Your task to perform on an android device: change keyboard looks Image 0: 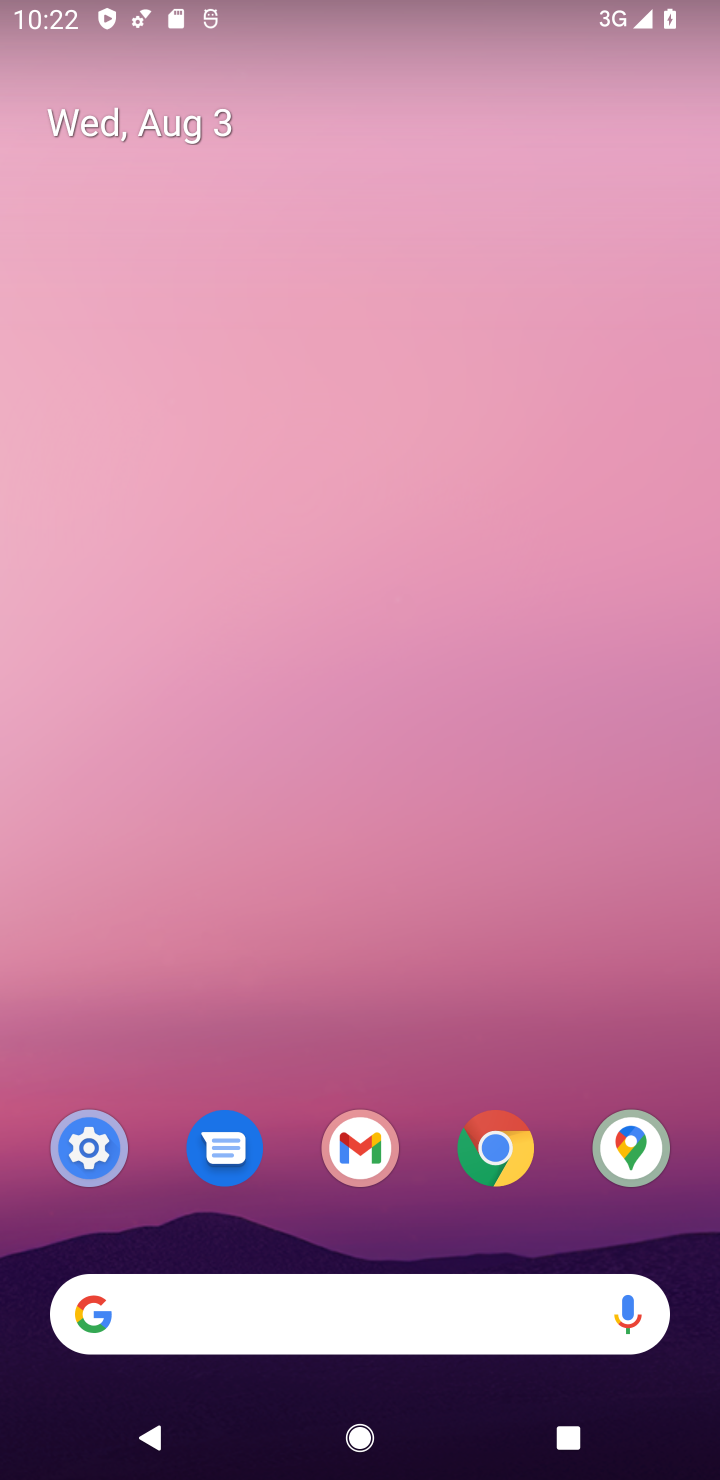
Step 0: drag from (485, 956) to (446, 260)
Your task to perform on an android device: change keyboard looks Image 1: 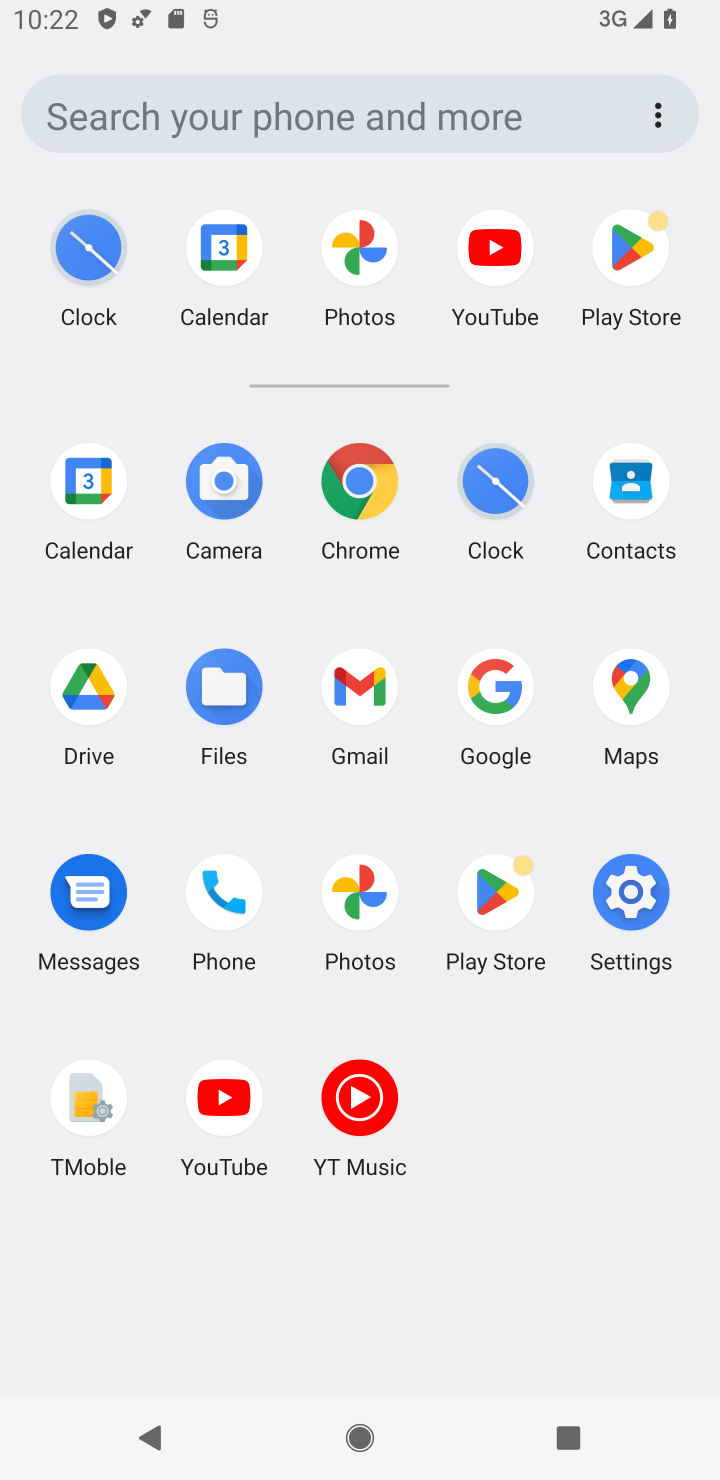
Step 1: click (631, 915)
Your task to perform on an android device: change keyboard looks Image 2: 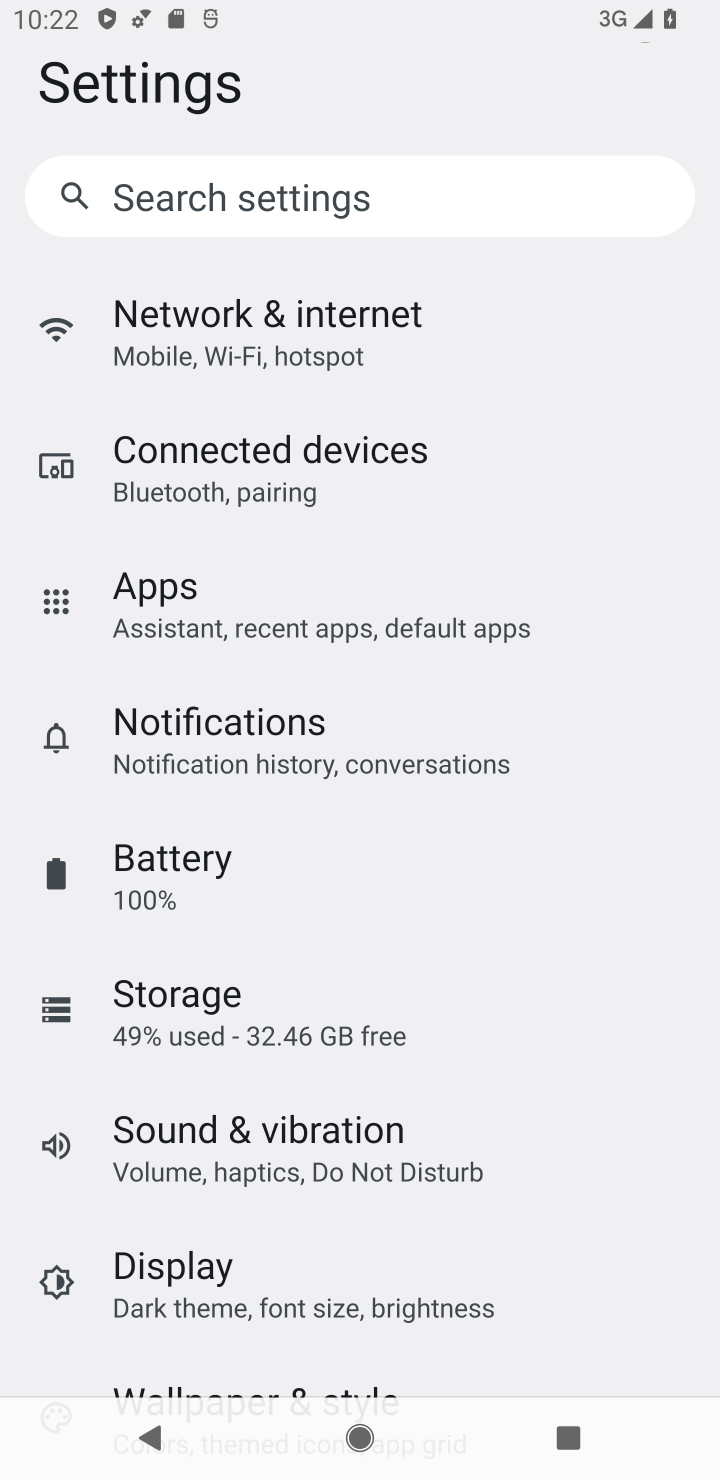
Step 2: task complete